Your task to perform on an android device: open device folders in google photos Image 0: 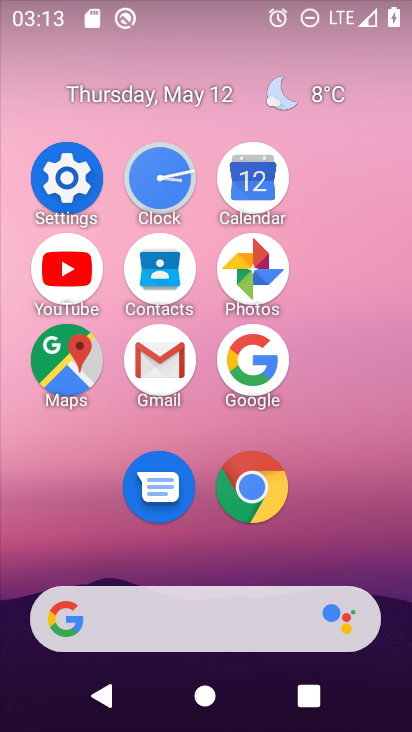
Step 0: click (272, 261)
Your task to perform on an android device: open device folders in google photos Image 1: 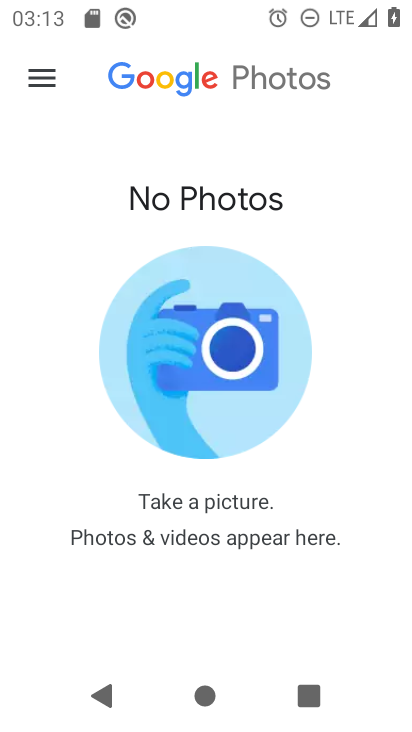
Step 1: task complete